Your task to perform on an android device: toggle notification dots Image 0: 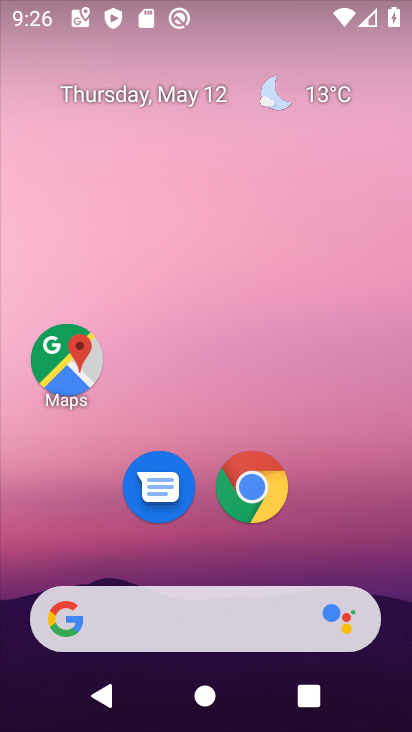
Step 0: drag from (202, 538) to (176, 34)
Your task to perform on an android device: toggle notification dots Image 1: 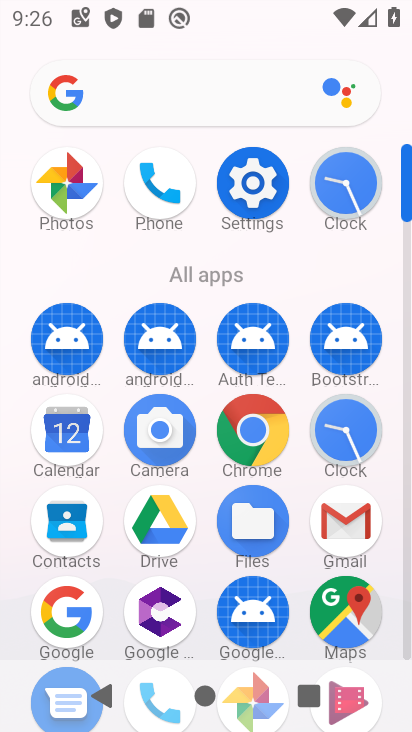
Step 1: click (263, 175)
Your task to perform on an android device: toggle notification dots Image 2: 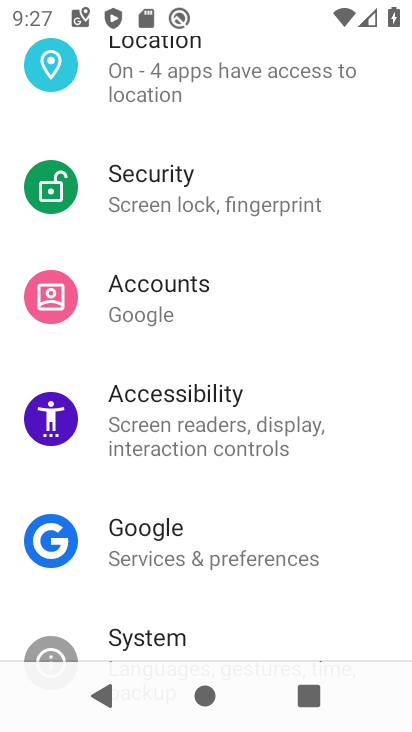
Step 2: drag from (301, 525) to (370, 129)
Your task to perform on an android device: toggle notification dots Image 3: 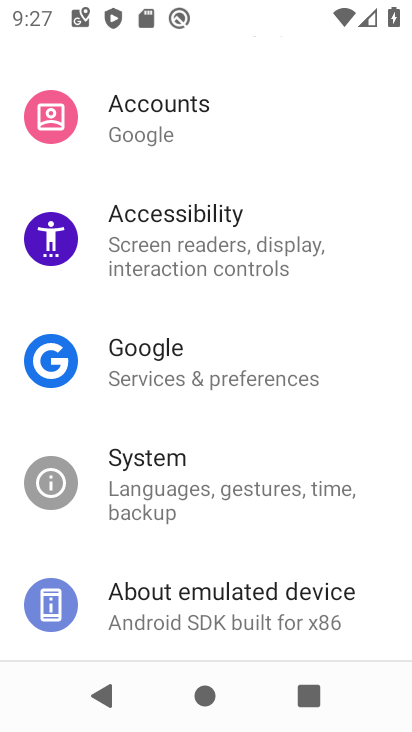
Step 3: drag from (220, 68) to (228, 638)
Your task to perform on an android device: toggle notification dots Image 4: 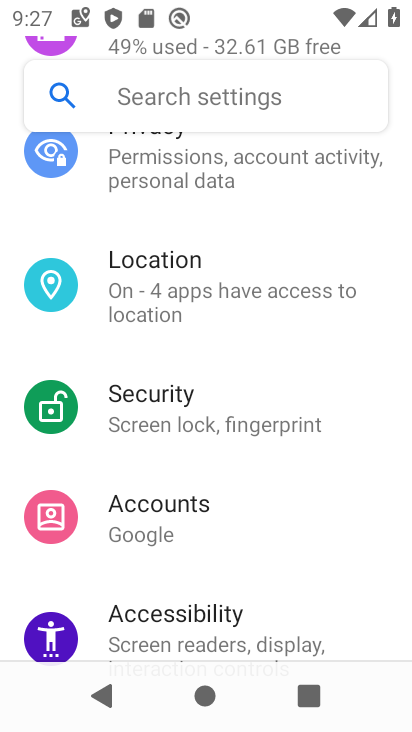
Step 4: drag from (265, 361) to (296, 635)
Your task to perform on an android device: toggle notification dots Image 5: 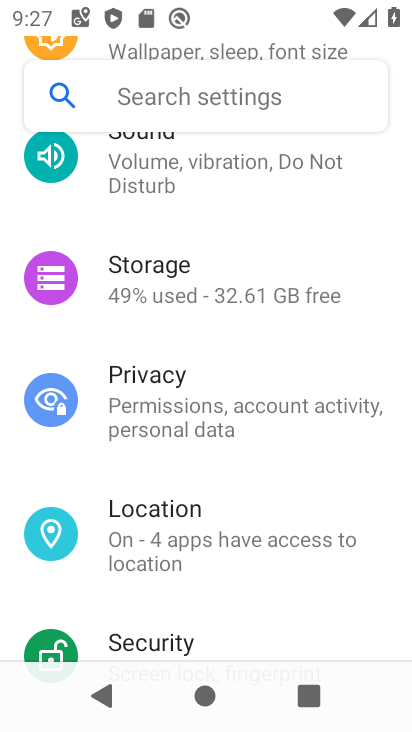
Step 5: drag from (275, 246) to (235, 627)
Your task to perform on an android device: toggle notification dots Image 6: 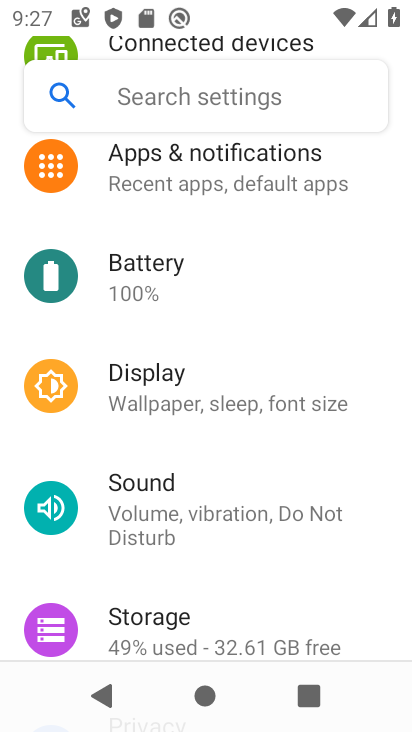
Step 6: click (221, 194)
Your task to perform on an android device: toggle notification dots Image 7: 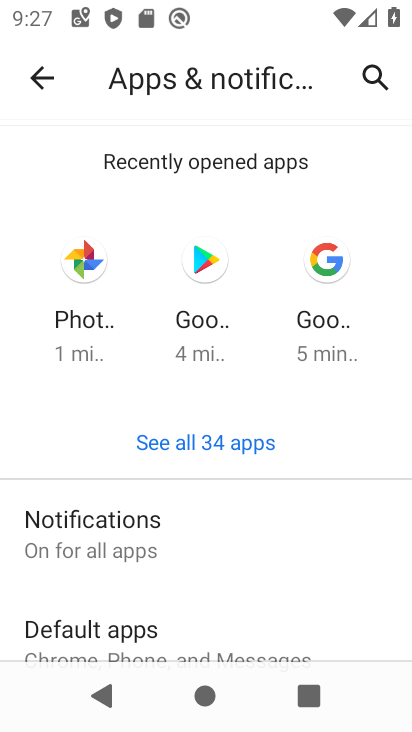
Step 7: click (239, 512)
Your task to perform on an android device: toggle notification dots Image 8: 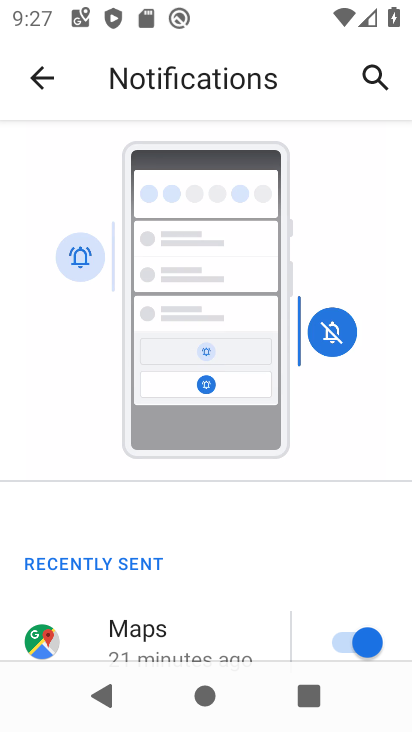
Step 8: drag from (168, 602) to (228, 165)
Your task to perform on an android device: toggle notification dots Image 9: 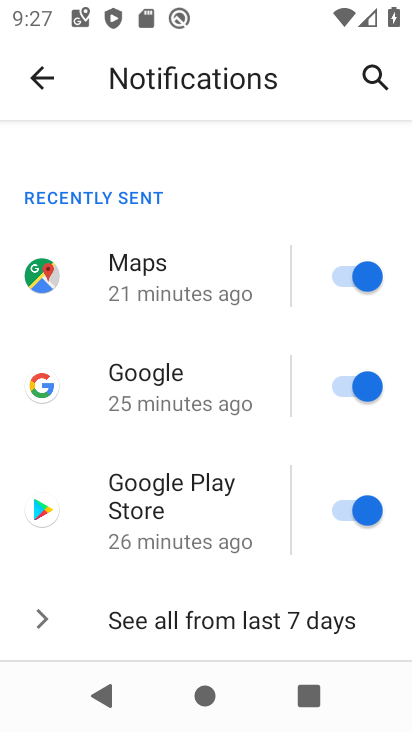
Step 9: drag from (217, 509) to (264, 236)
Your task to perform on an android device: toggle notification dots Image 10: 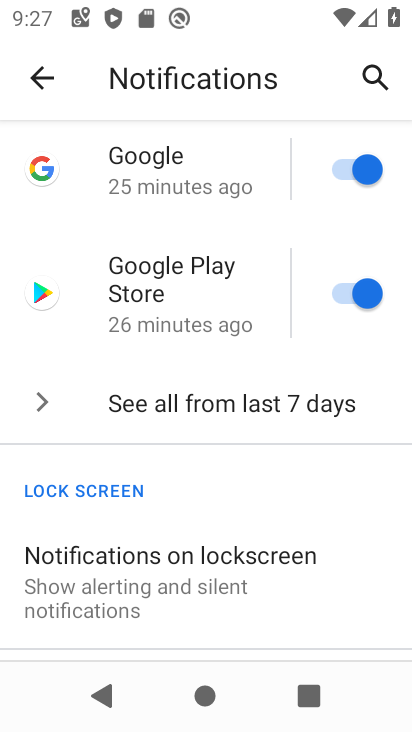
Step 10: drag from (168, 605) to (222, 283)
Your task to perform on an android device: toggle notification dots Image 11: 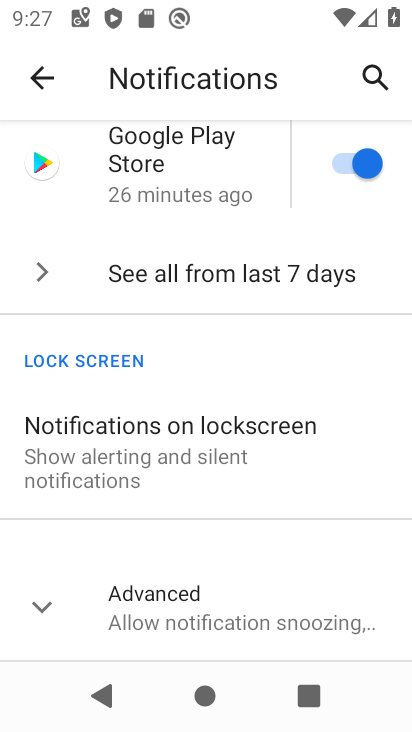
Step 11: click (178, 591)
Your task to perform on an android device: toggle notification dots Image 12: 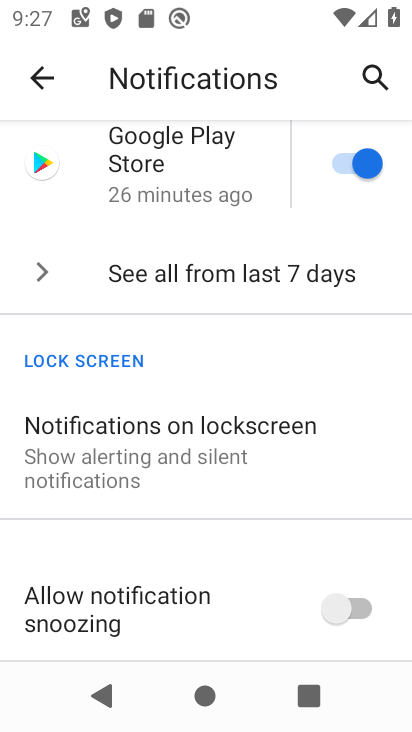
Step 12: drag from (191, 635) to (294, 177)
Your task to perform on an android device: toggle notification dots Image 13: 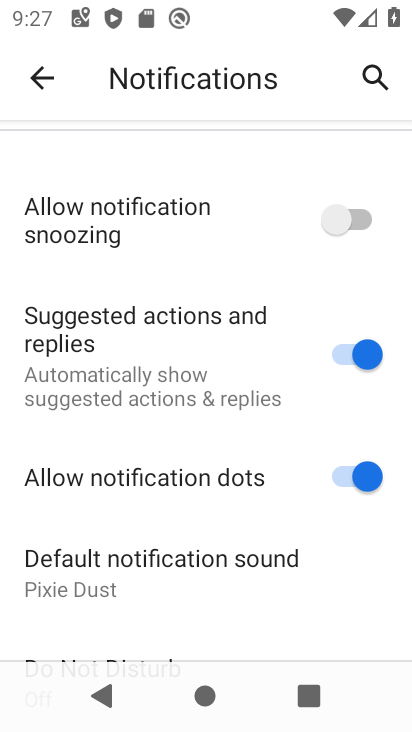
Step 13: click (365, 490)
Your task to perform on an android device: toggle notification dots Image 14: 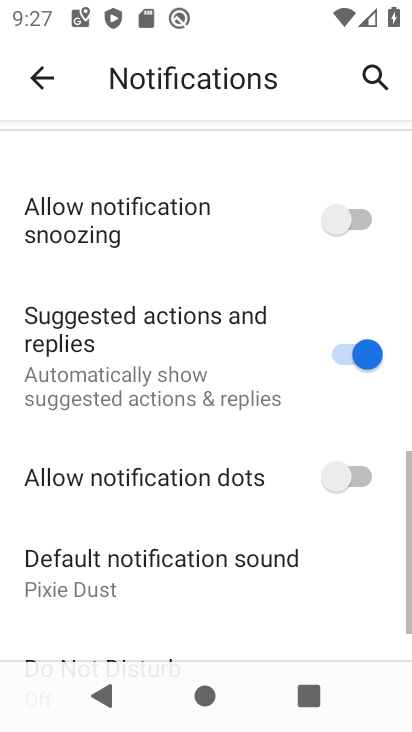
Step 14: click (365, 490)
Your task to perform on an android device: toggle notification dots Image 15: 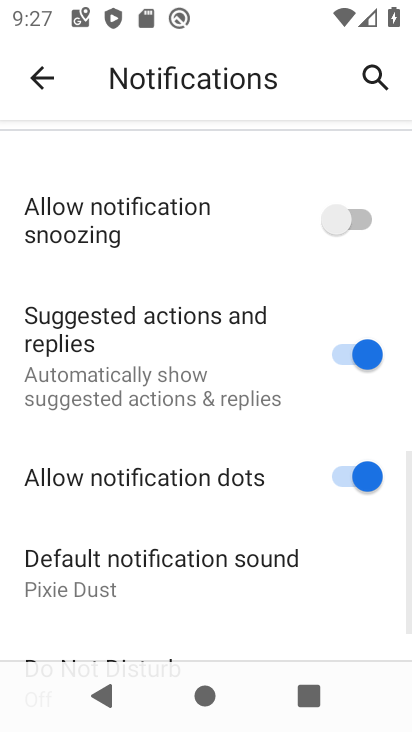
Step 15: task complete